Your task to perform on an android device: check android version Image 0: 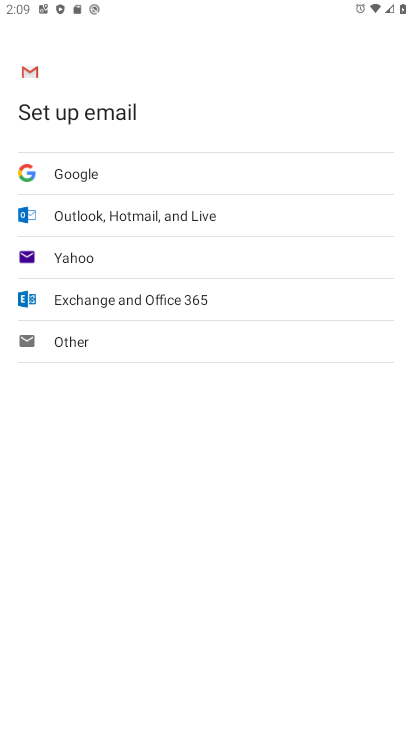
Step 0: press home button
Your task to perform on an android device: check android version Image 1: 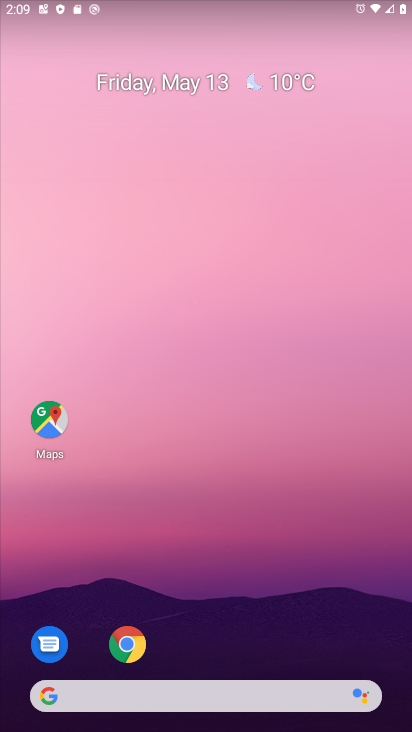
Step 1: drag from (173, 718) to (180, 249)
Your task to perform on an android device: check android version Image 2: 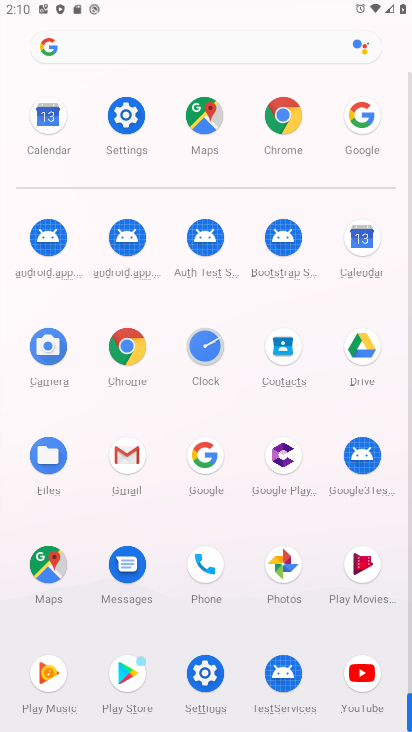
Step 2: click (129, 110)
Your task to perform on an android device: check android version Image 3: 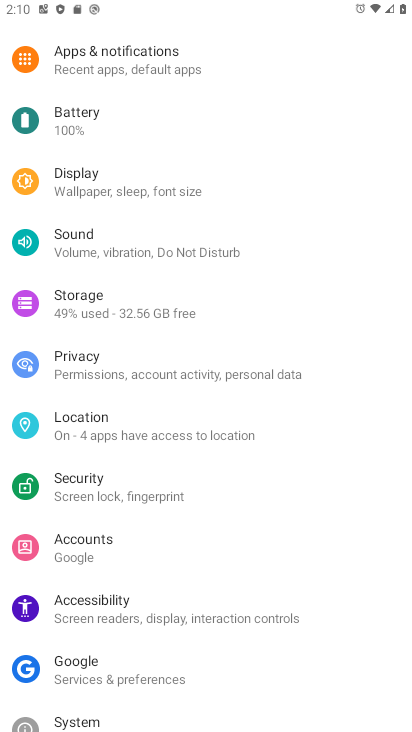
Step 3: drag from (163, 617) to (165, 242)
Your task to perform on an android device: check android version Image 4: 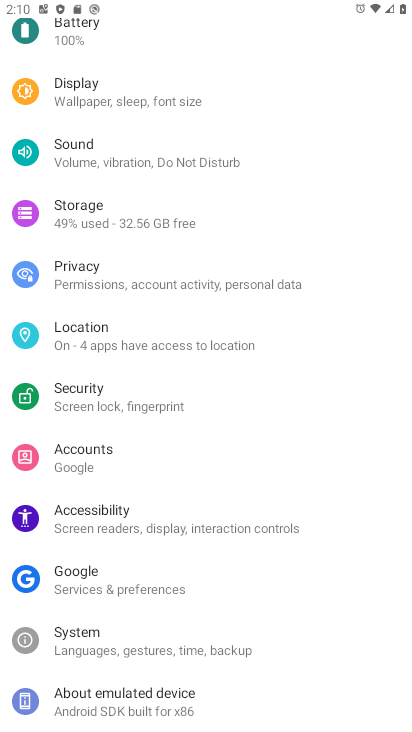
Step 4: click (127, 696)
Your task to perform on an android device: check android version Image 5: 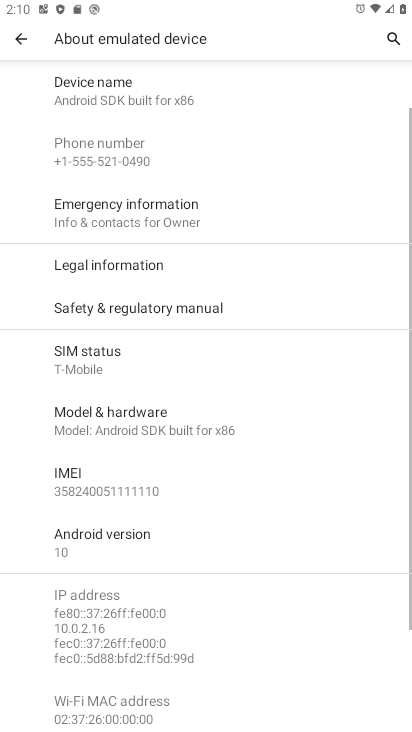
Step 5: click (103, 534)
Your task to perform on an android device: check android version Image 6: 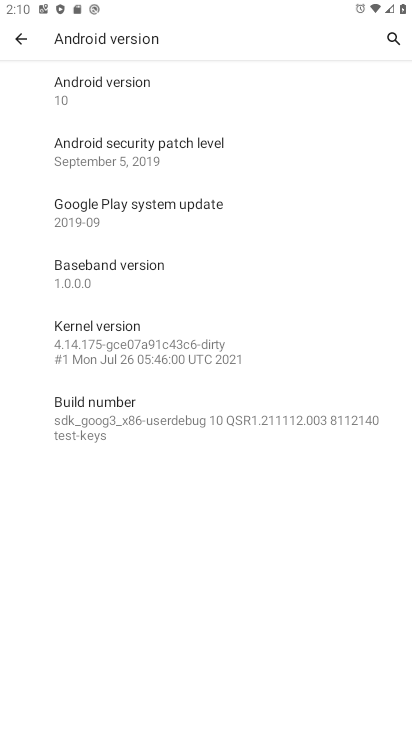
Step 6: task complete